Your task to perform on an android device: check the backup settings in the google photos Image 0: 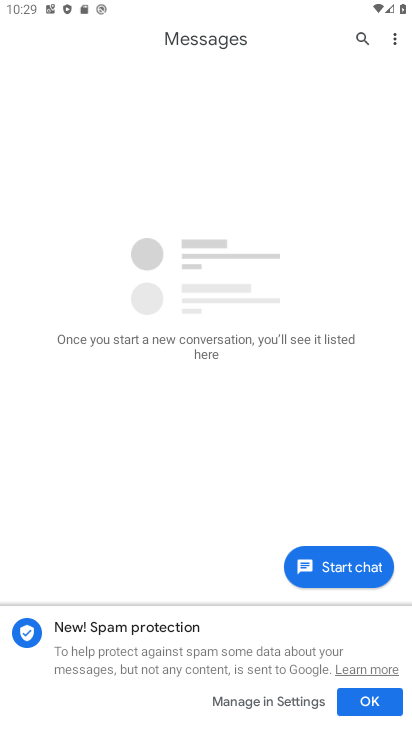
Step 0: press home button
Your task to perform on an android device: check the backup settings in the google photos Image 1: 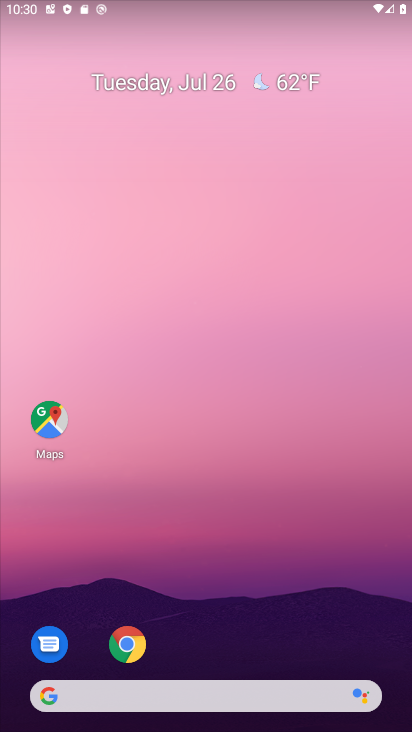
Step 1: drag from (261, 628) to (320, 166)
Your task to perform on an android device: check the backup settings in the google photos Image 2: 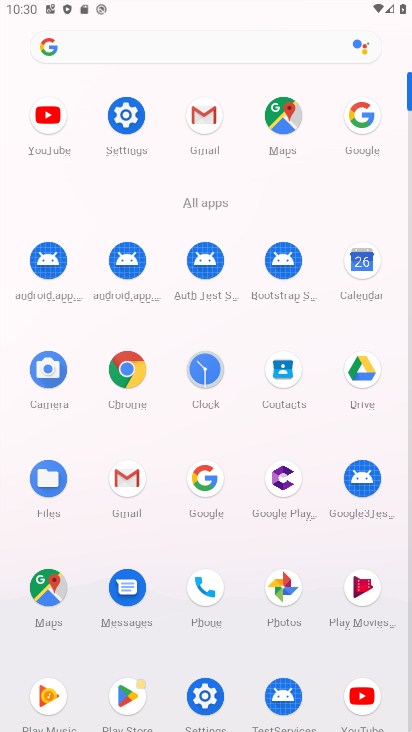
Step 2: click (286, 578)
Your task to perform on an android device: check the backup settings in the google photos Image 3: 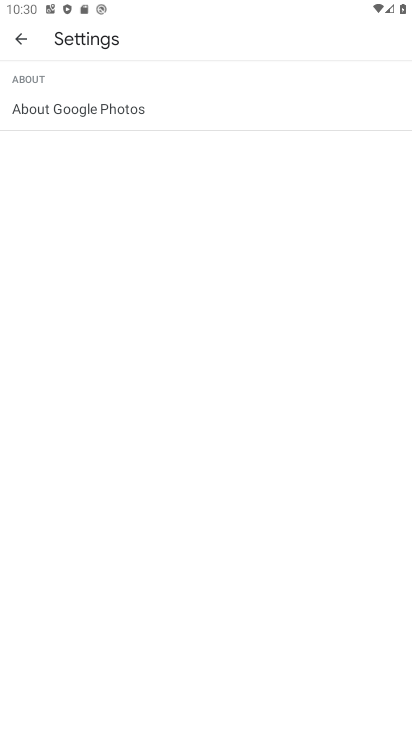
Step 3: click (23, 39)
Your task to perform on an android device: check the backup settings in the google photos Image 4: 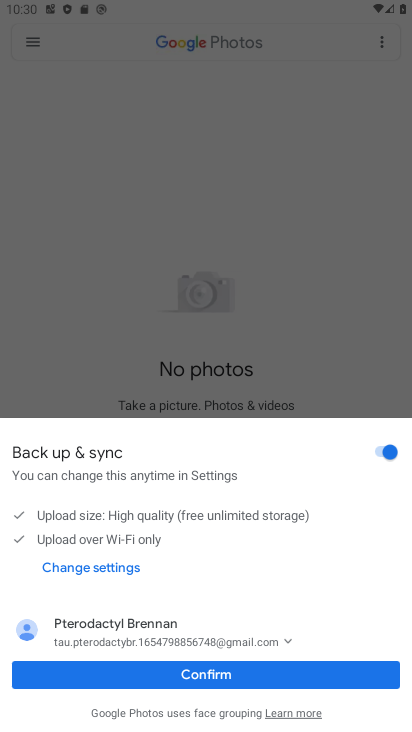
Step 4: click (271, 682)
Your task to perform on an android device: check the backup settings in the google photos Image 5: 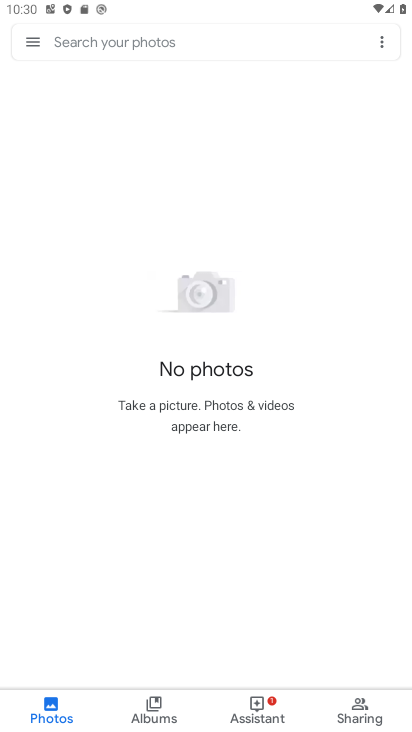
Step 5: click (18, 38)
Your task to perform on an android device: check the backup settings in the google photos Image 6: 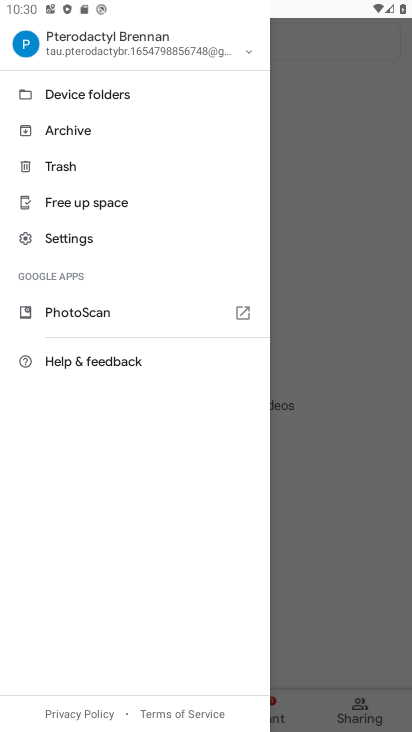
Step 6: click (126, 237)
Your task to perform on an android device: check the backup settings in the google photos Image 7: 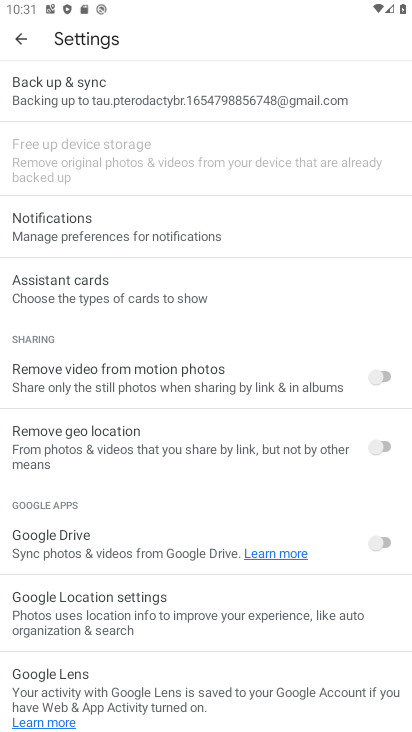
Step 7: click (82, 82)
Your task to perform on an android device: check the backup settings in the google photos Image 8: 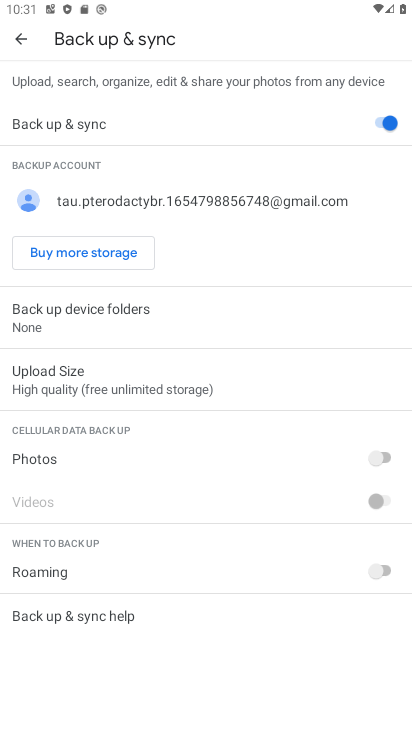
Step 8: task complete